Your task to perform on an android device: Check the news Image 0: 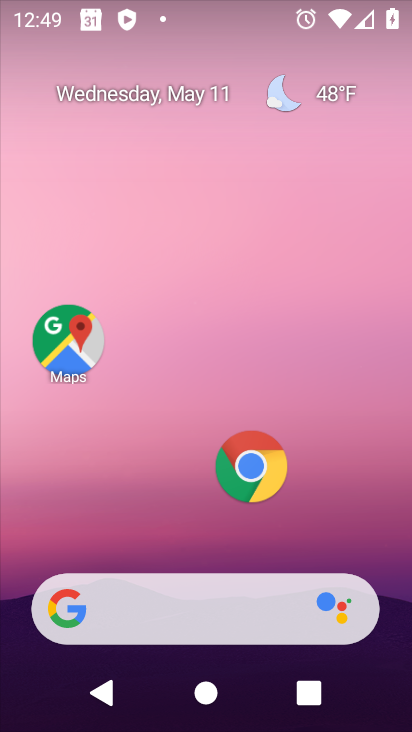
Step 0: drag from (180, 502) to (208, 130)
Your task to perform on an android device: Check the news Image 1: 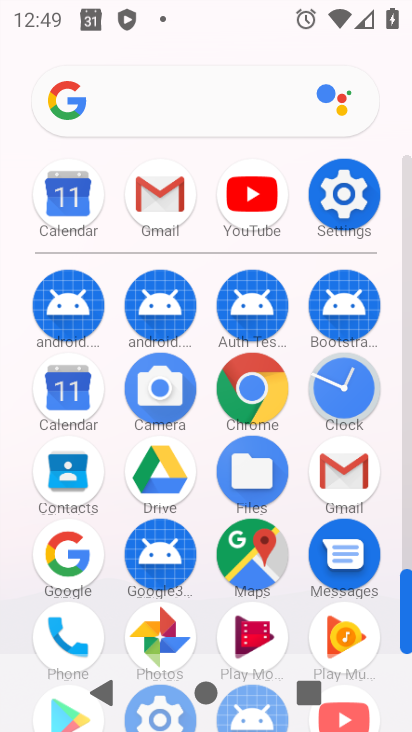
Step 1: click (152, 96)
Your task to perform on an android device: Check the news Image 2: 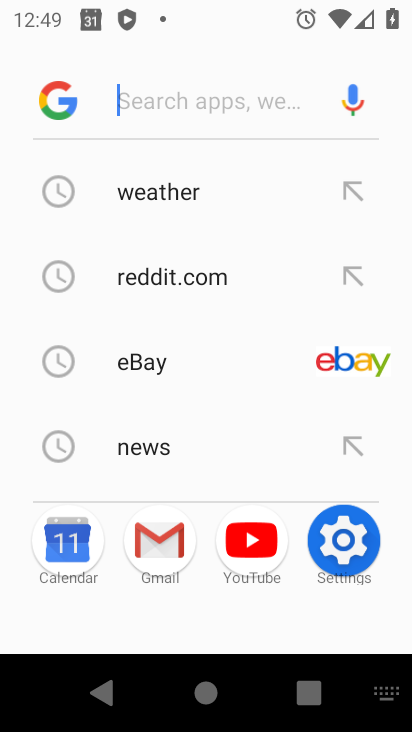
Step 2: click (149, 436)
Your task to perform on an android device: Check the news Image 3: 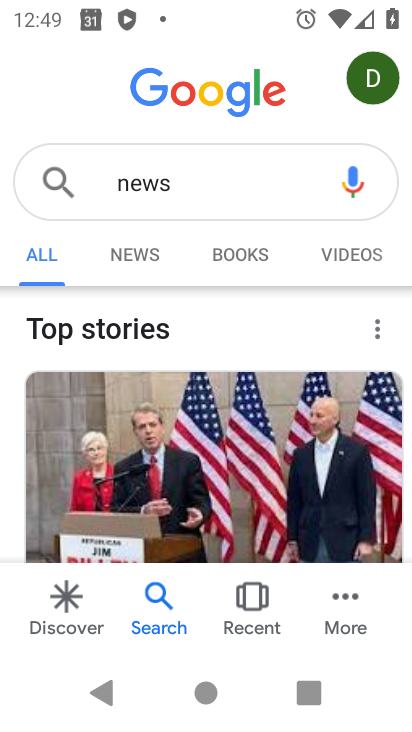
Step 3: task complete